Your task to perform on an android device: create a new album in the google photos Image 0: 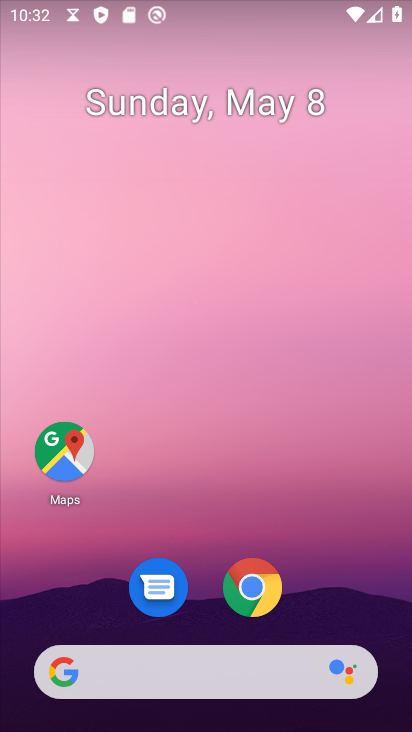
Step 0: drag from (308, 599) to (186, 172)
Your task to perform on an android device: create a new album in the google photos Image 1: 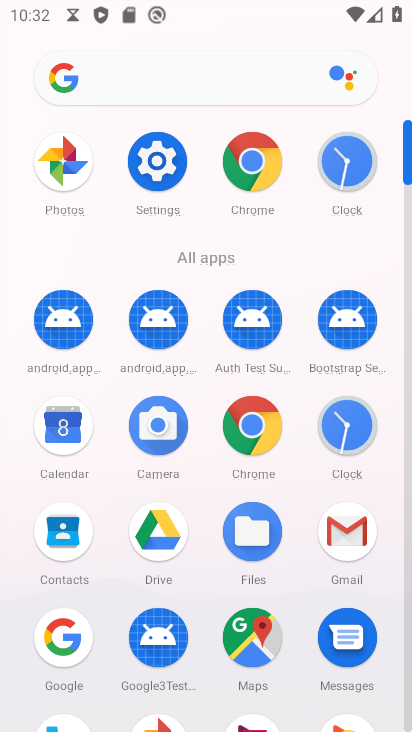
Step 1: click (51, 146)
Your task to perform on an android device: create a new album in the google photos Image 2: 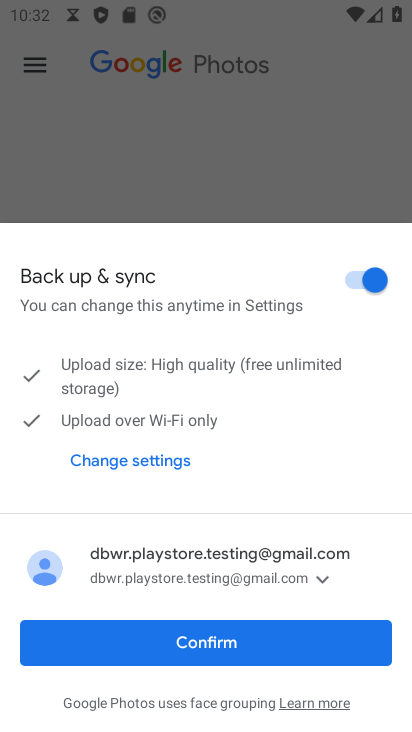
Step 2: click (272, 654)
Your task to perform on an android device: create a new album in the google photos Image 3: 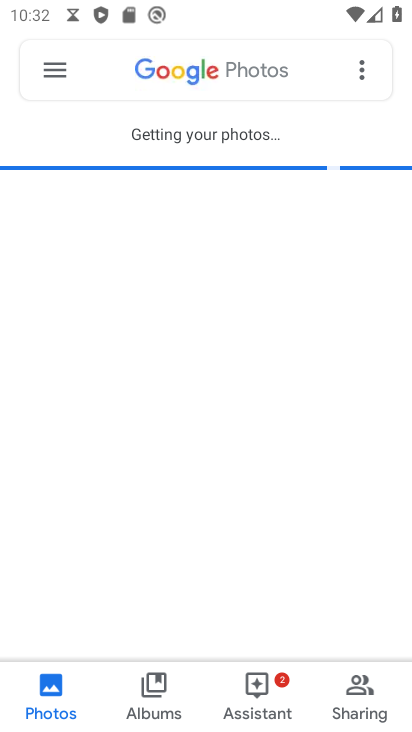
Step 3: click (140, 691)
Your task to perform on an android device: create a new album in the google photos Image 4: 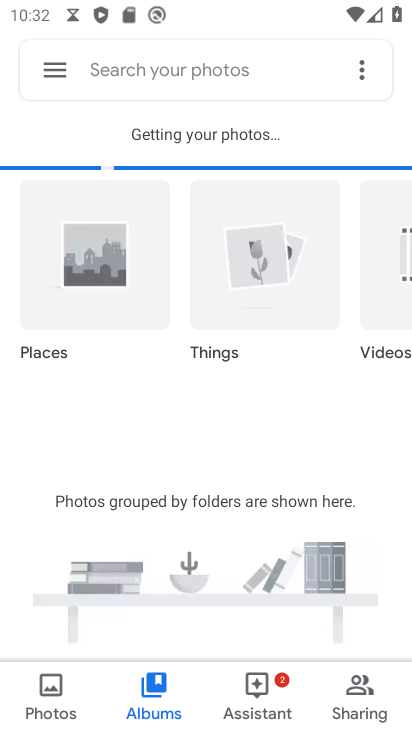
Step 4: drag from (211, 607) to (202, 254)
Your task to perform on an android device: create a new album in the google photos Image 5: 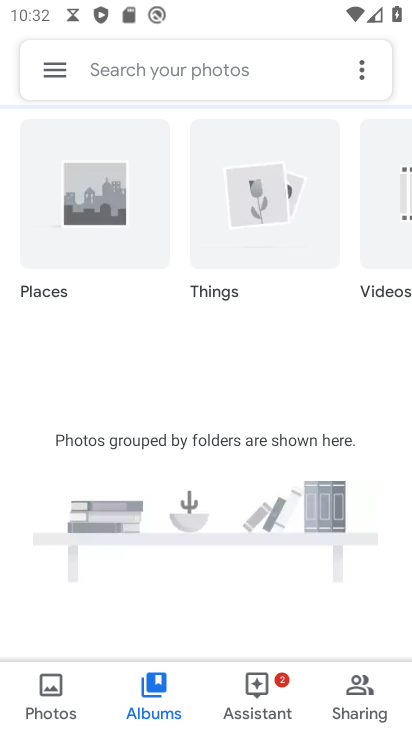
Step 5: drag from (224, 281) to (202, 555)
Your task to perform on an android device: create a new album in the google photos Image 6: 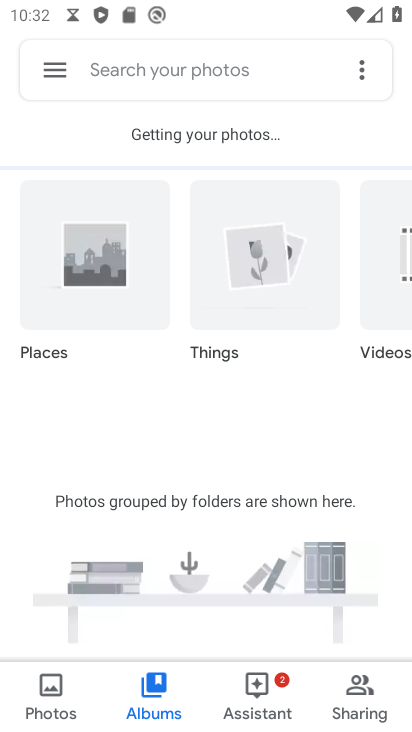
Step 6: click (366, 72)
Your task to perform on an android device: create a new album in the google photos Image 7: 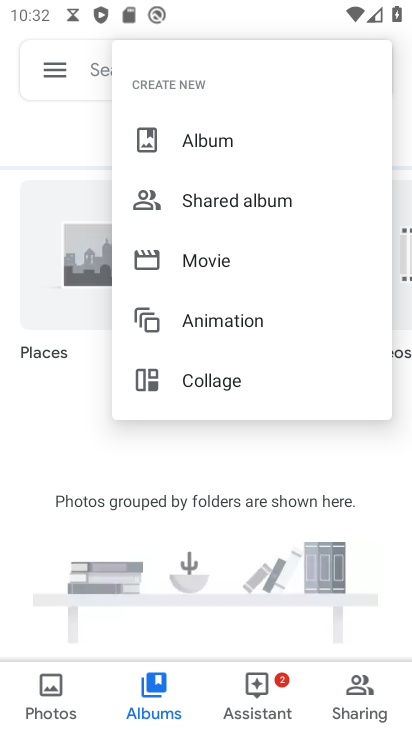
Step 7: click (188, 143)
Your task to perform on an android device: create a new album in the google photos Image 8: 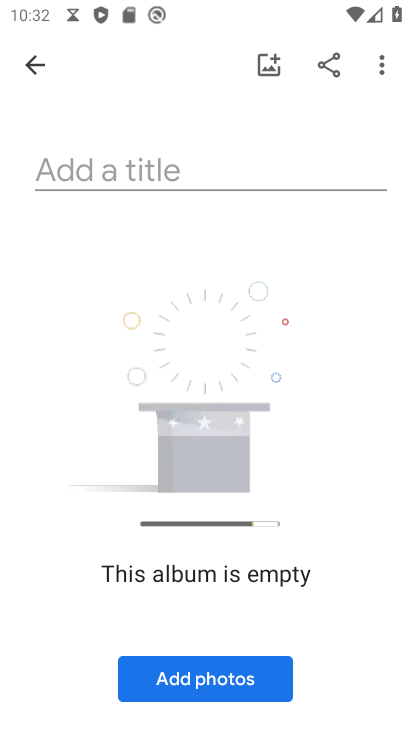
Step 8: click (188, 177)
Your task to perform on an android device: create a new album in the google photos Image 9: 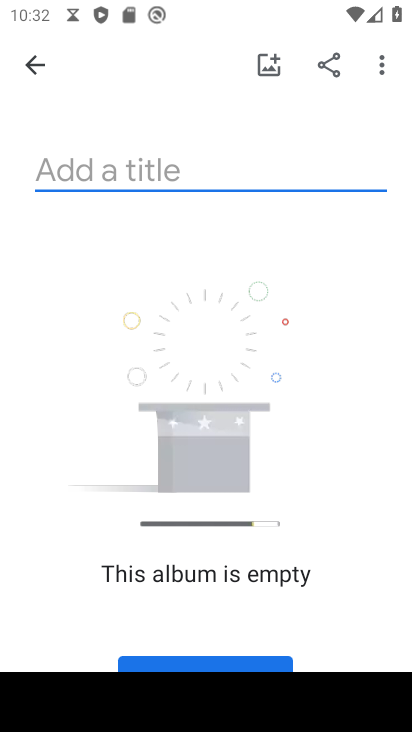
Step 9: type "hey"
Your task to perform on an android device: create a new album in the google photos Image 10: 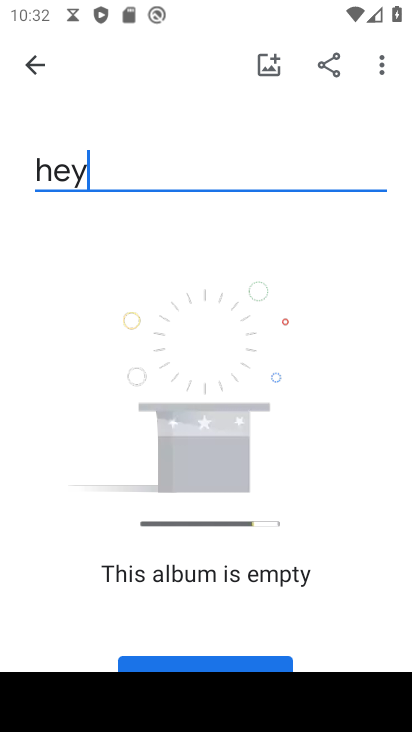
Step 10: drag from (211, 594) to (217, 437)
Your task to perform on an android device: create a new album in the google photos Image 11: 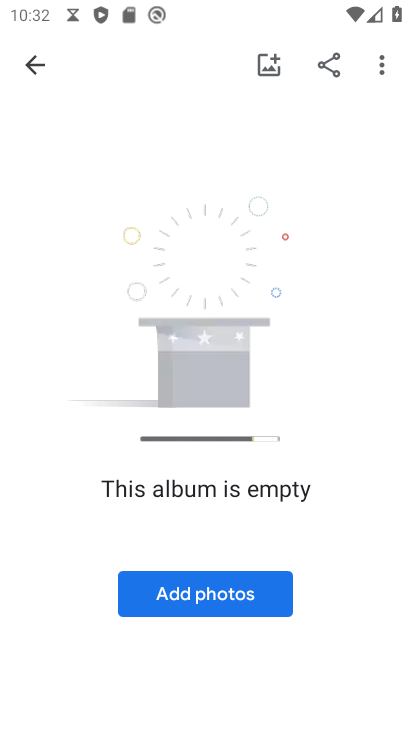
Step 11: click (214, 588)
Your task to perform on an android device: create a new album in the google photos Image 12: 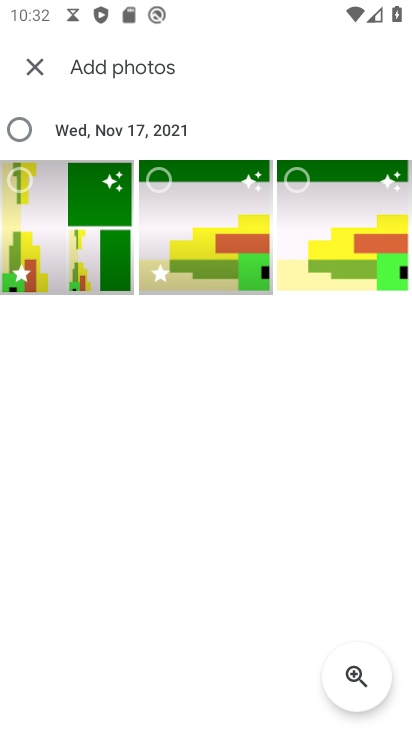
Step 12: click (17, 172)
Your task to perform on an android device: create a new album in the google photos Image 13: 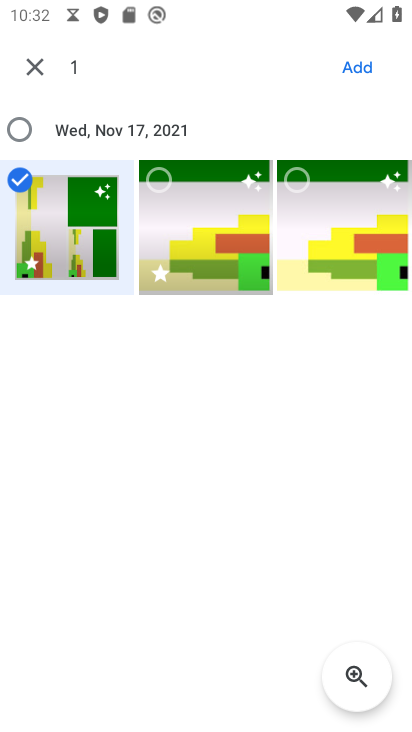
Step 13: click (352, 71)
Your task to perform on an android device: create a new album in the google photos Image 14: 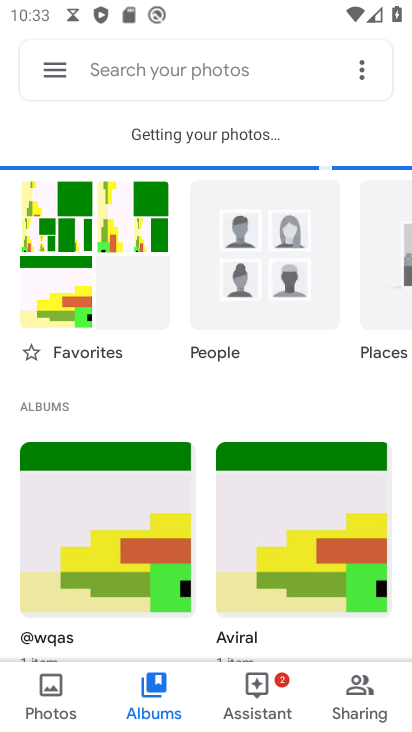
Step 14: task complete